Your task to perform on an android device: Search for hotels in Las Vegas Image 0: 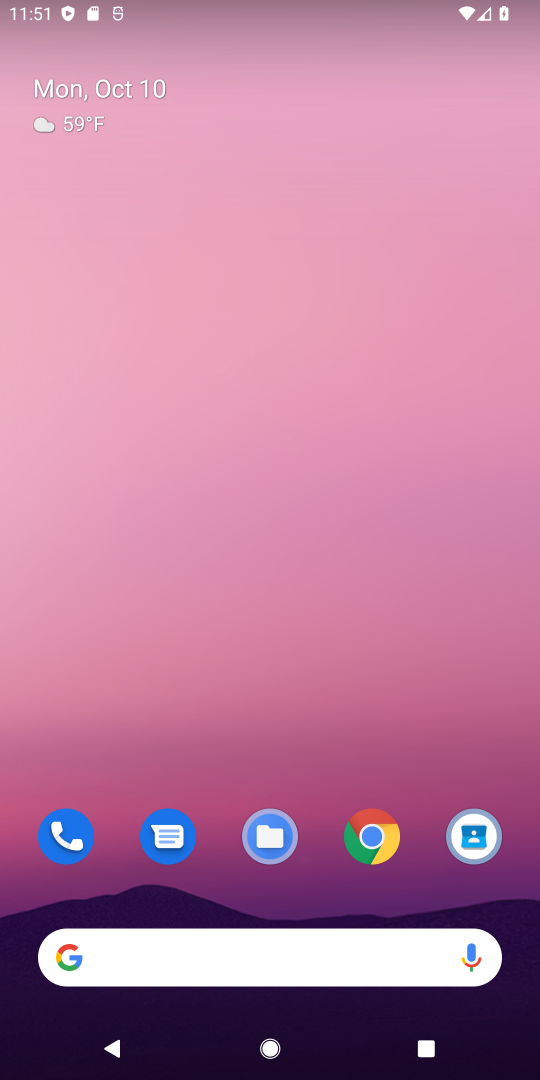
Step 0: drag from (361, 738) to (270, 137)
Your task to perform on an android device: Search for hotels in Las Vegas Image 1: 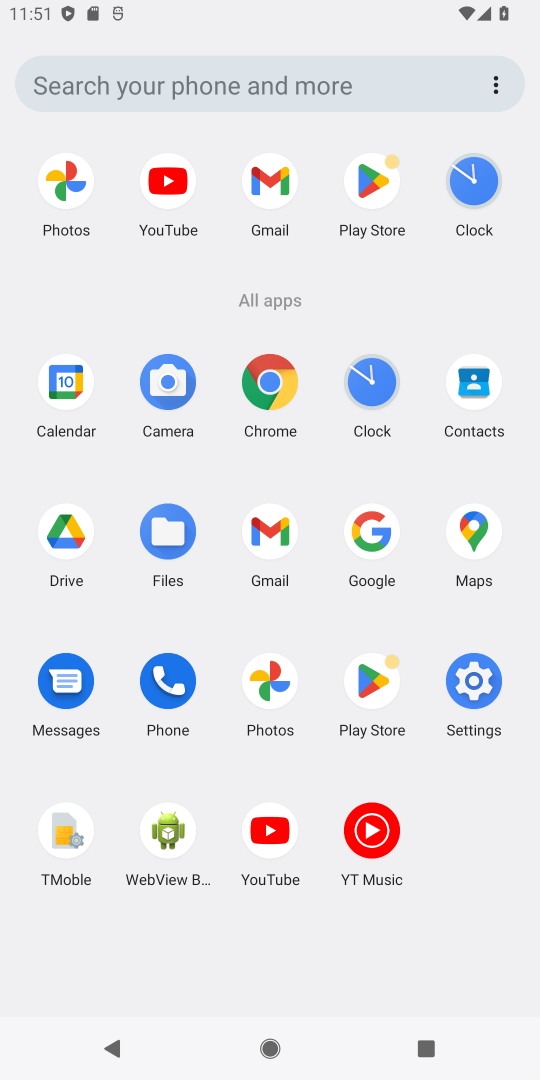
Step 1: click (275, 404)
Your task to perform on an android device: Search for hotels in Las Vegas Image 2: 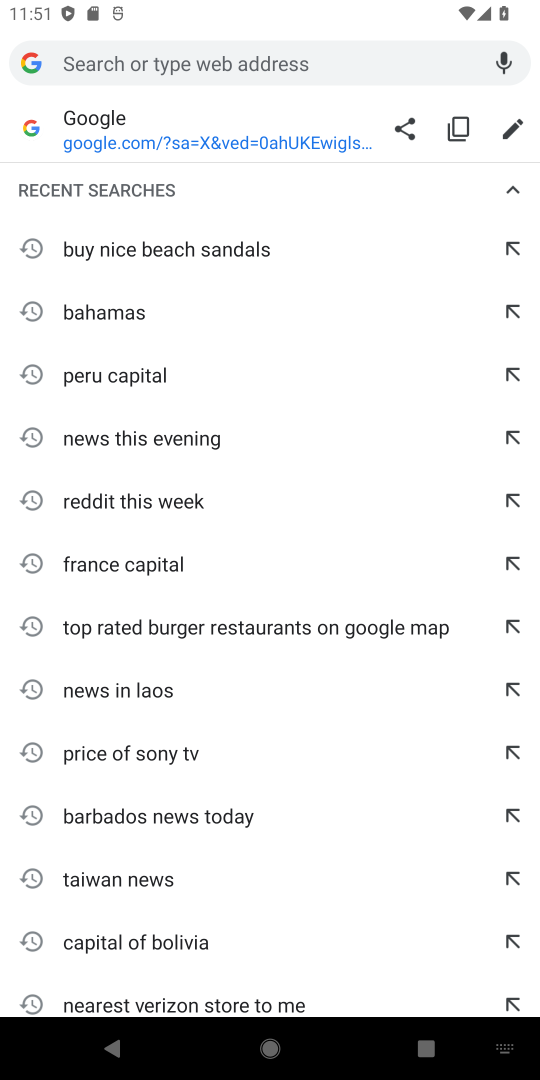
Step 2: type "hotels in las vegas"
Your task to perform on an android device: Search for hotels in Las Vegas Image 3: 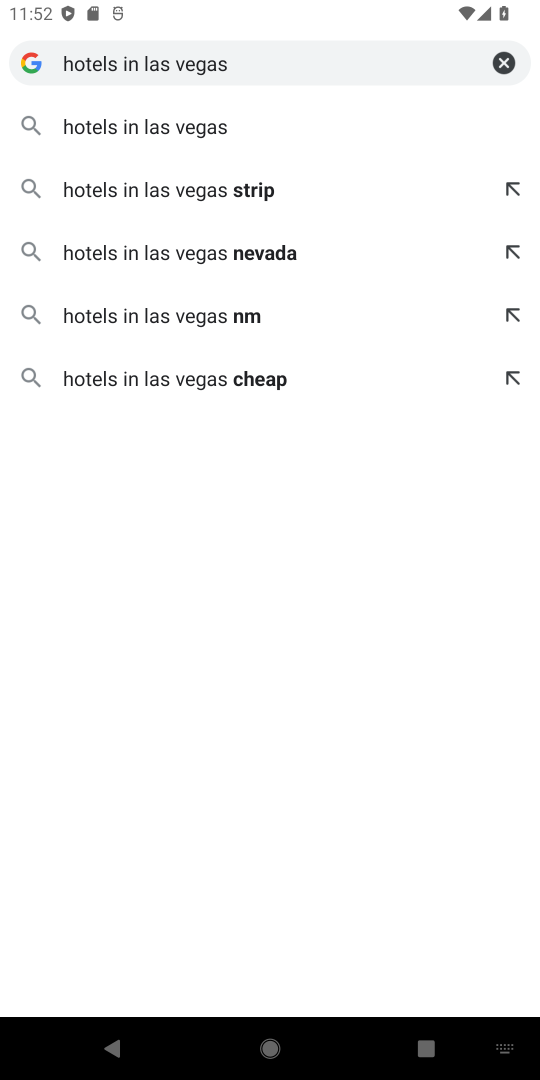
Step 3: click (228, 137)
Your task to perform on an android device: Search for hotels in Las Vegas Image 4: 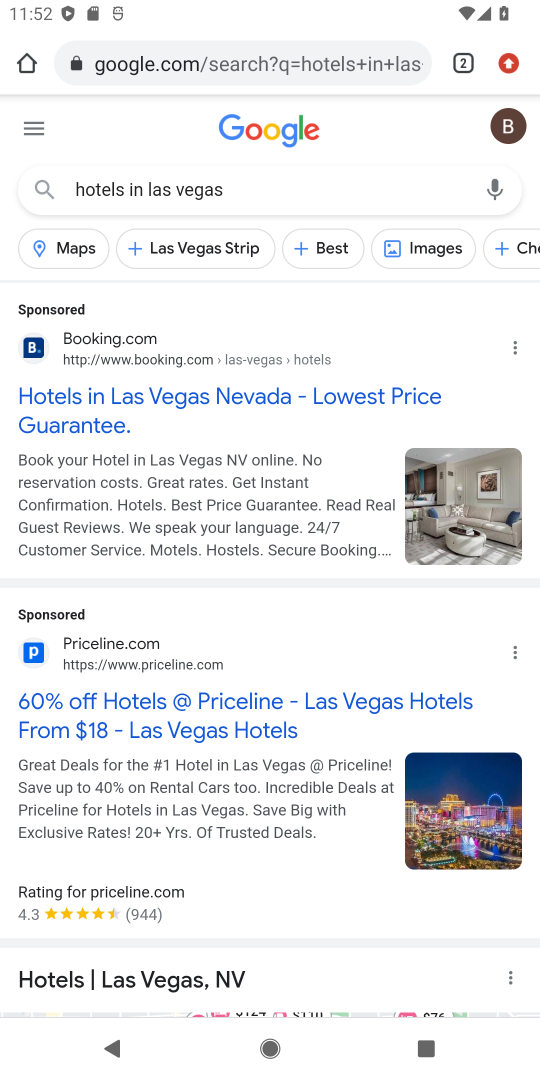
Step 4: task complete